Your task to perform on an android device: Open calendar and show me the second week of next month Image 0: 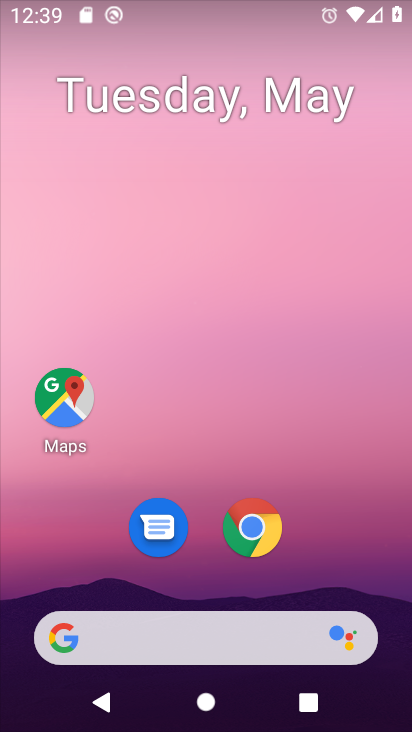
Step 0: drag from (243, 698) to (280, 2)
Your task to perform on an android device: Open calendar and show me the second week of next month Image 1: 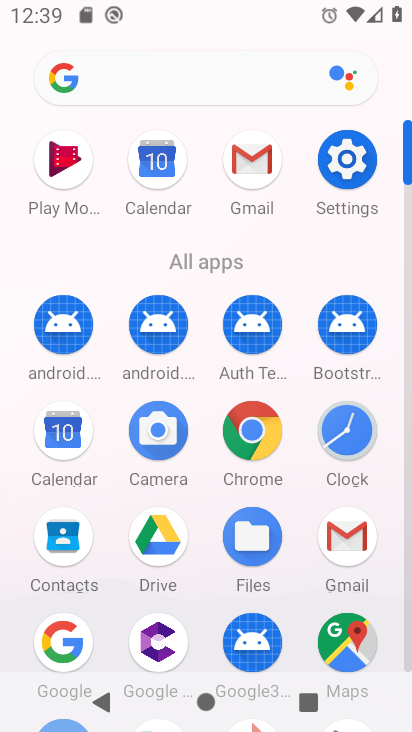
Step 1: click (69, 443)
Your task to perform on an android device: Open calendar and show me the second week of next month Image 2: 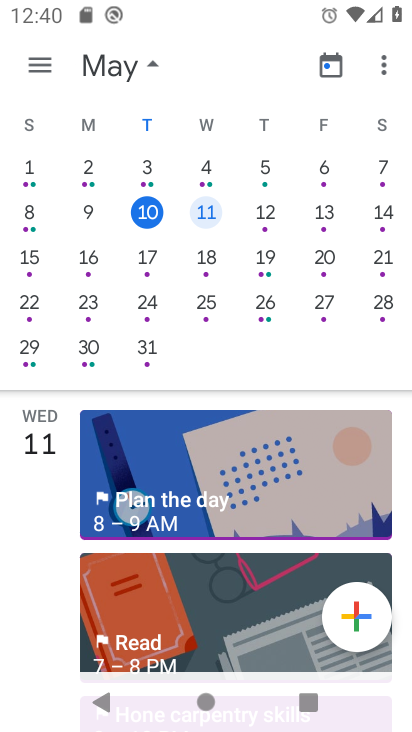
Step 2: drag from (319, 273) to (23, 350)
Your task to perform on an android device: Open calendar and show me the second week of next month Image 3: 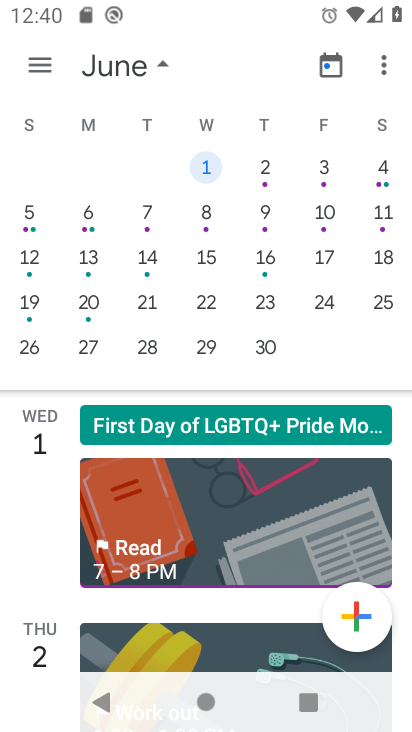
Step 3: click (27, 219)
Your task to perform on an android device: Open calendar and show me the second week of next month Image 4: 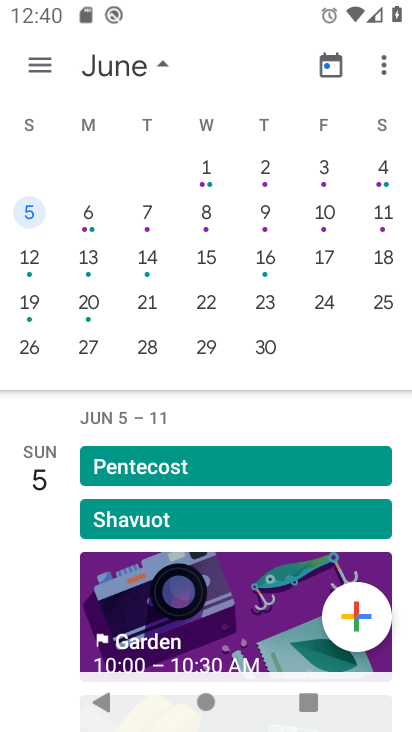
Step 4: task complete